Your task to perform on an android device: visit the assistant section in the google photos Image 0: 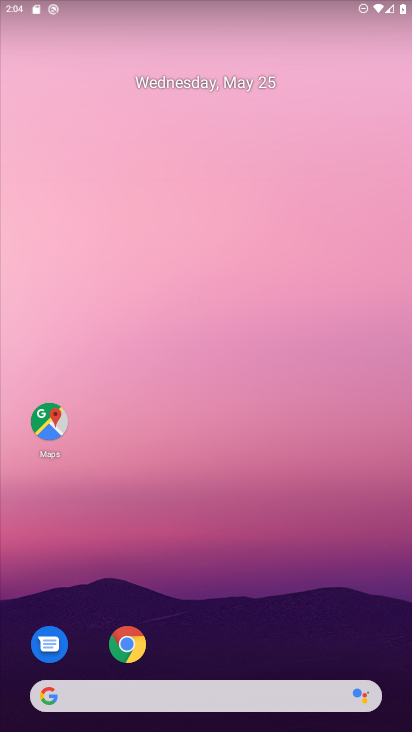
Step 0: drag from (230, 634) to (203, 231)
Your task to perform on an android device: visit the assistant section in the google photos Image 1: 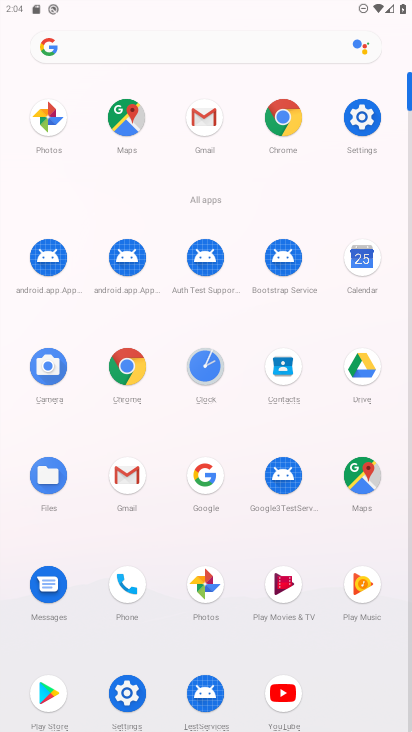
Step 1: click (215, 575)
Your task to perform on an android device: visit the assistant section in the google photos Image 2: 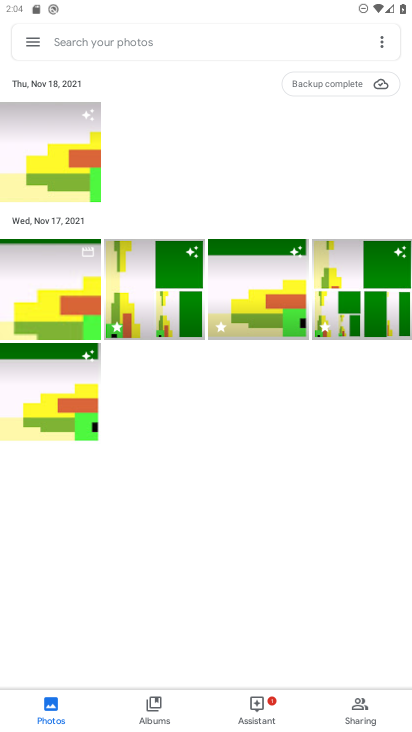
Step 2: click (269, 702)
Your task to perform on an android device: visit the assistant section in the google photos Image 3: 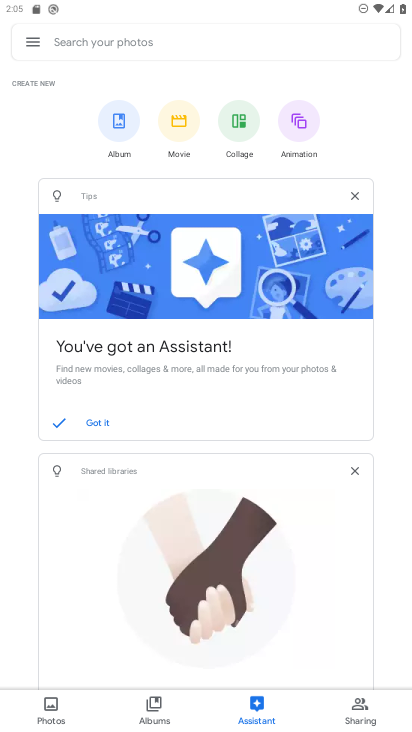
Step 3: task complete